Your task to perform on an android device: empty trash in google photos Image 0: 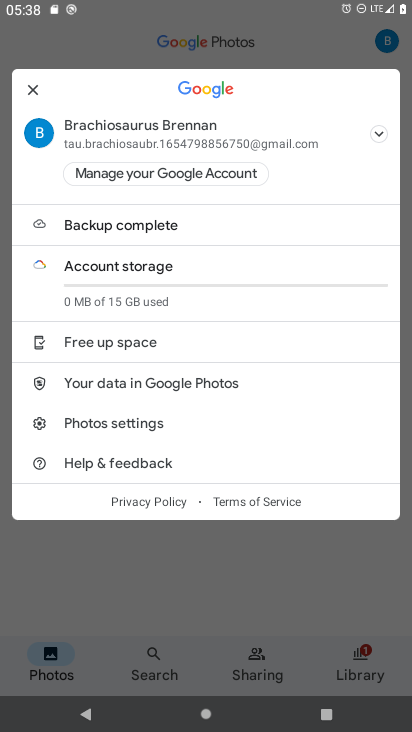
Step 0: press home button
Your task to perform on an android device: empty trash in google photos Image 1: 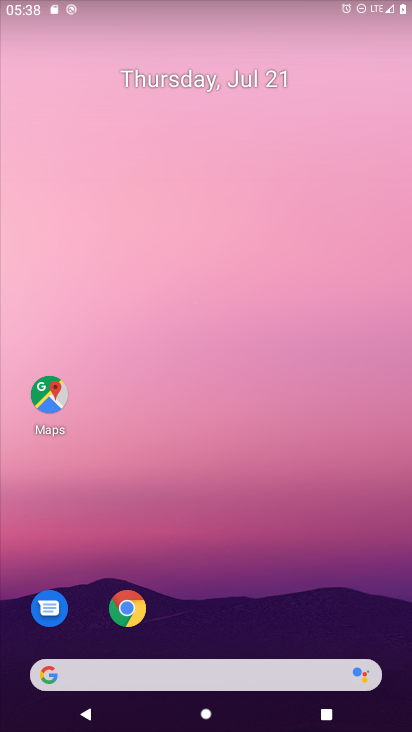
Step 1: drag from (131, 659) to (234, 0)
Your task to perform on an android device: empty trash in google photos Image 2: 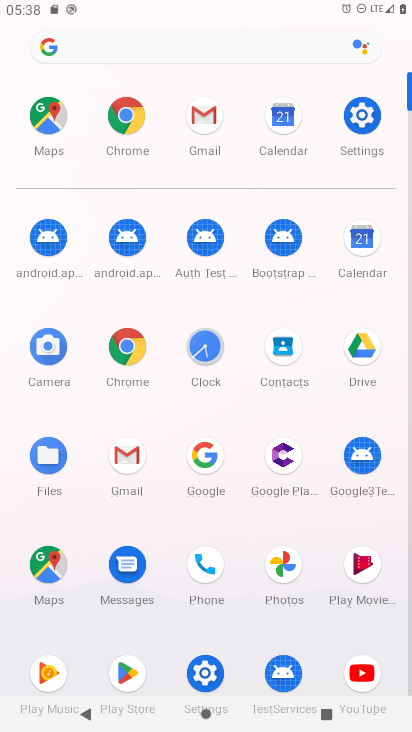
Step 2: click (287, 570)
Your task to perform on an android device: empty trash in google photos Image 3: 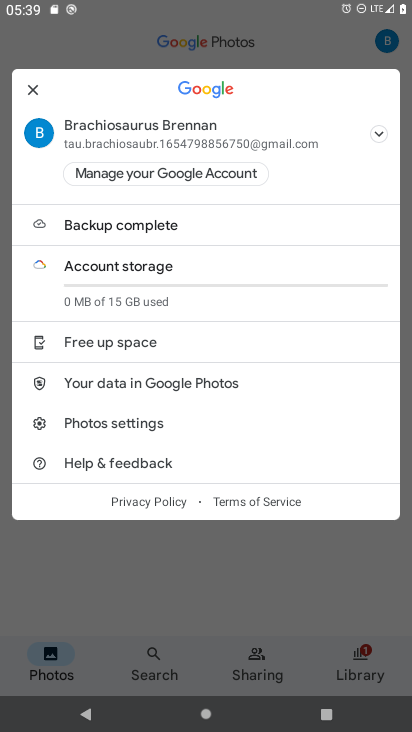
Step 3: click (237, 588)
Your task to perform on an android device: empty trash in google photos Image 4: 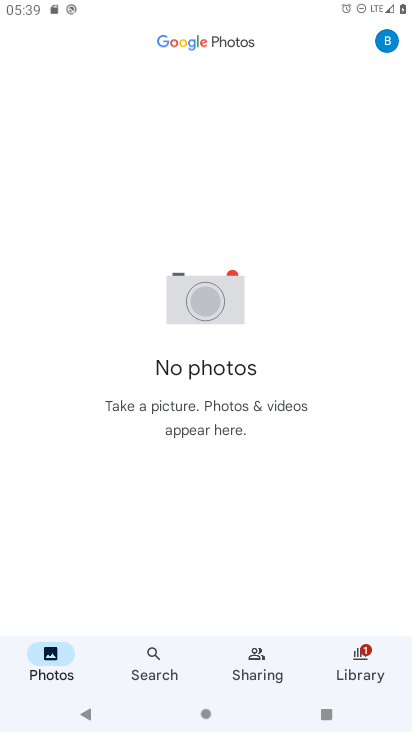
Step 4: click (388, 41)
Your task to perform on an android device: empty trash in google photos Image 5: 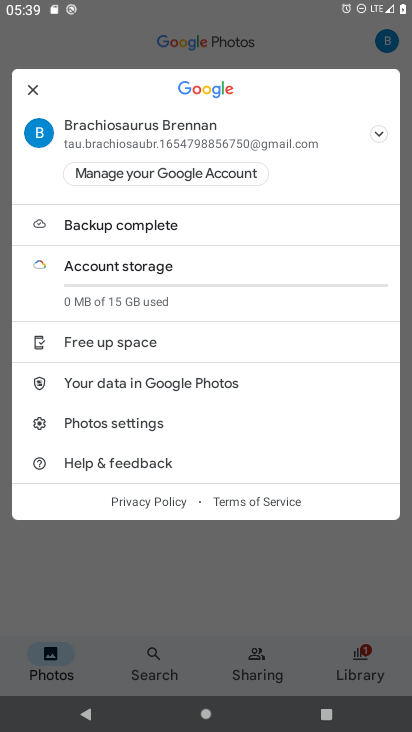
Step 5: click (355, 656)
Your task to perform on an android device: empty trash in google photos Image 6: 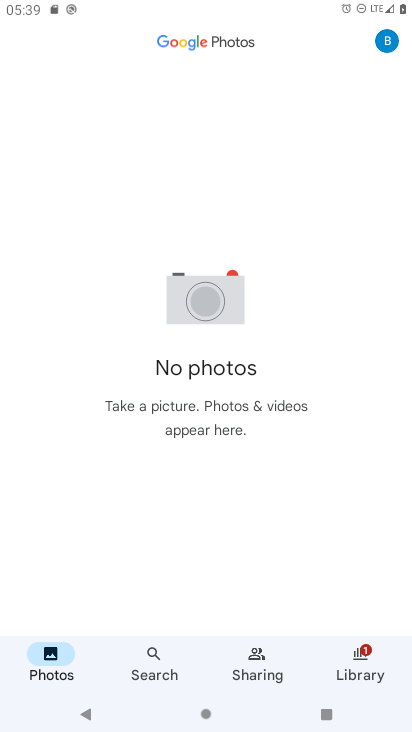
Step 6: click (355, 655)
Your task to perform on an android device: empty trash in google photos Image 7: 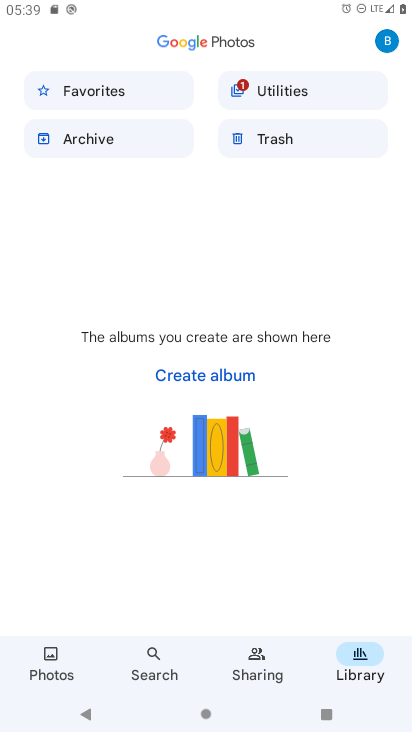
Step 7: click (280, 130)
Your task to perform on an android device: empty trash in google photos Image 8: 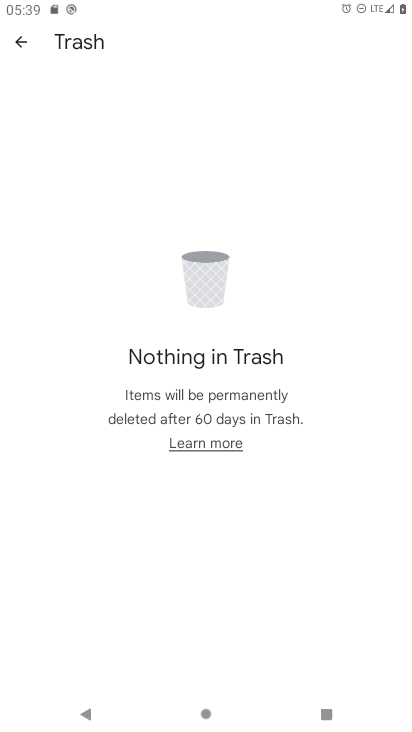
Step 8: task complete